Your task to perform on an android device: turn on bluetooth scan Image 0: 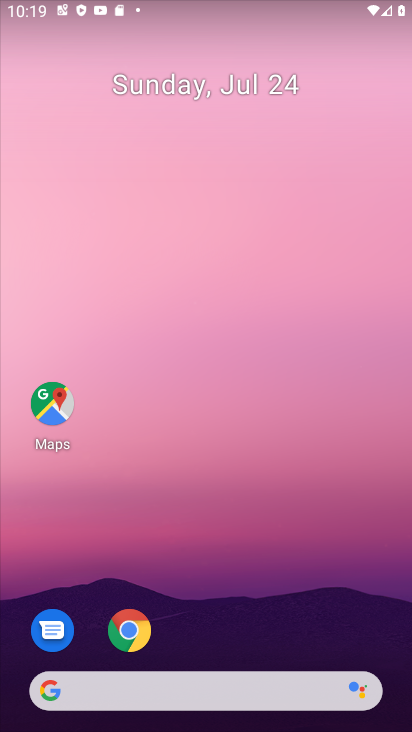
Step 0: drag from (245, 621) to (228, 100)
Your task to perform on an android device: turn on bluetooth scan Image 1: 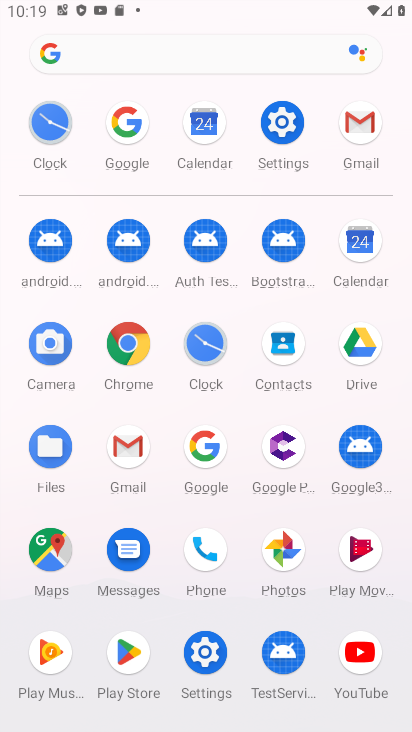
Step 1: click (271, 116)
Your task to perform on an android device: turn on bluetooth scan Image 2: 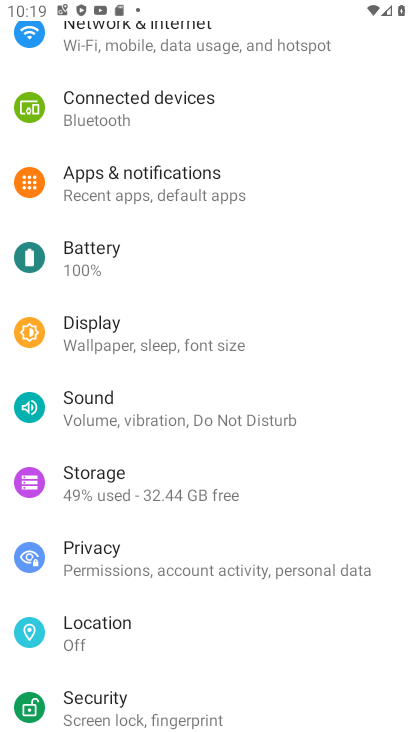
Step 2: drag from (220, 637) to (188, 363)
Your task to perform on an android device: turn on bluetooth scan Image 3: 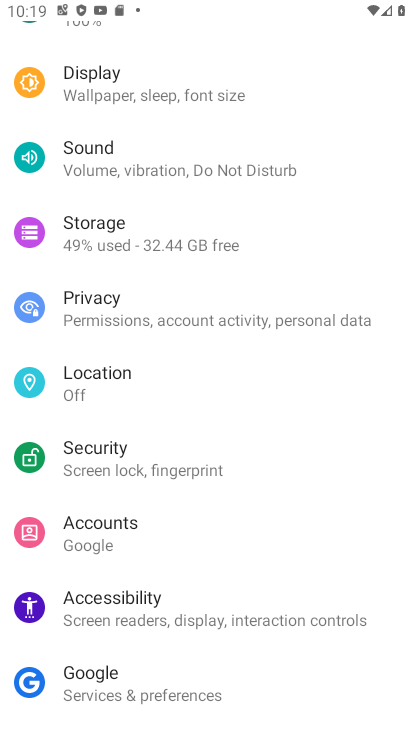
Step 3: drag from (173, 256) to (185, 506)
Your task to perform on an android device: turn on bluetooth scan Image 4: 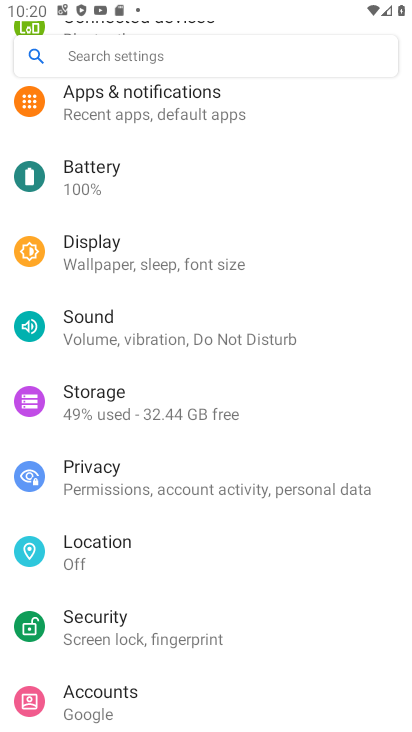
Step 4: click (164, 562)
Your task to perform on an android device: turn on bluetooth scan Image 5: 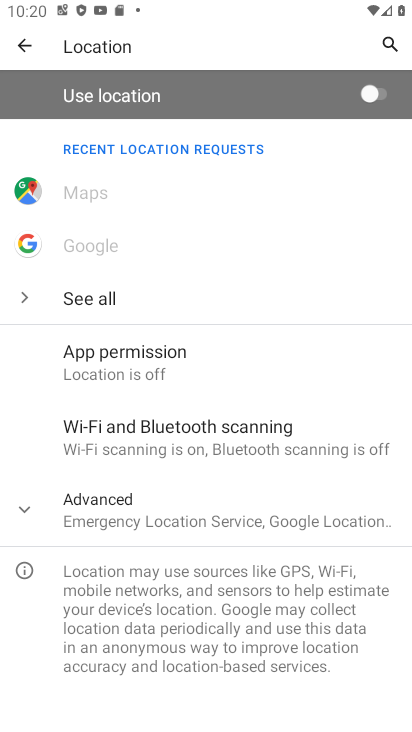
Step 5: click (266, 438)
Your task to perform on an android device: turn on bluetooth scan Image 6: 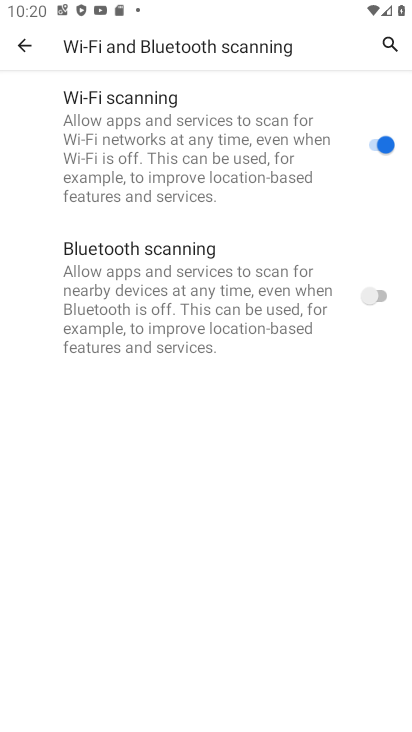
Step 6: click (375, 285)
Your task to perform on an android device: turn on bluetooth scan Image 7: 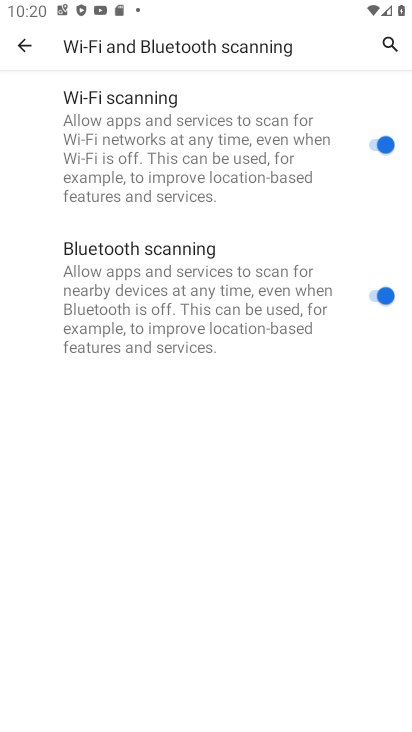
Step 7: task complete